Your task to perform on an android device: toggle airplane mode Image 0: 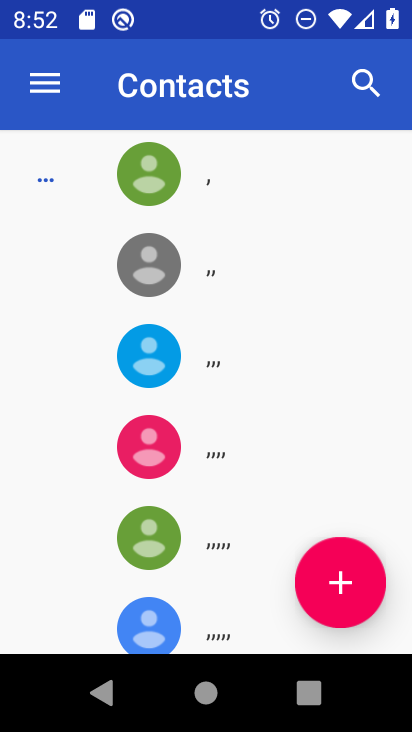
Step 0: press home button
Your task to perform on an android device: toggle airplane mode Image 1: 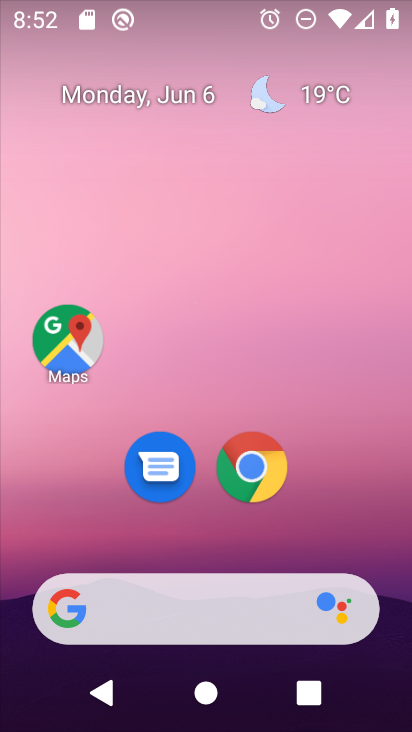
Step 1: drag from (362, 509) to (375, 102)
Your task to perform on an android device: toggle airplane mode Image 2: 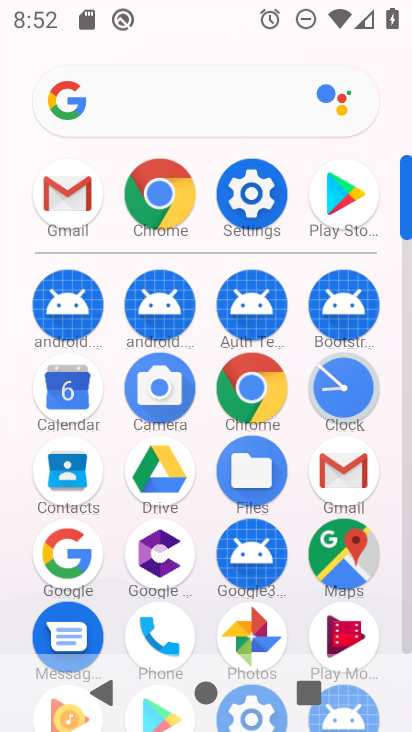
Step 2: click (259, 205)
Your task to perform on an android device: toggle airplane mode Image 3: 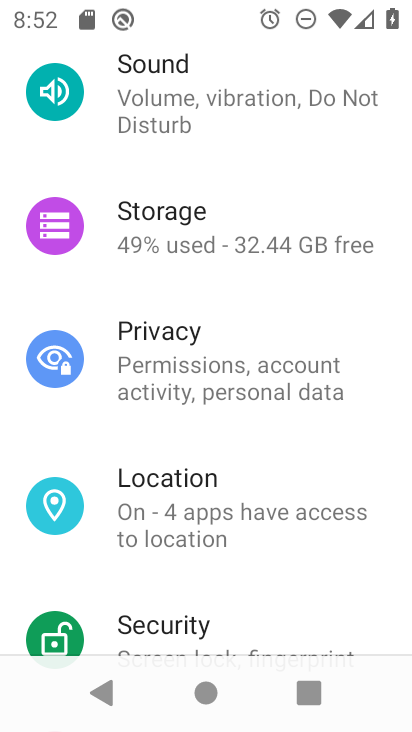
Step 3: drag from (353, 303) to (367, 432)
Your task to perform on an android device: toggle airplane mode Image 4: 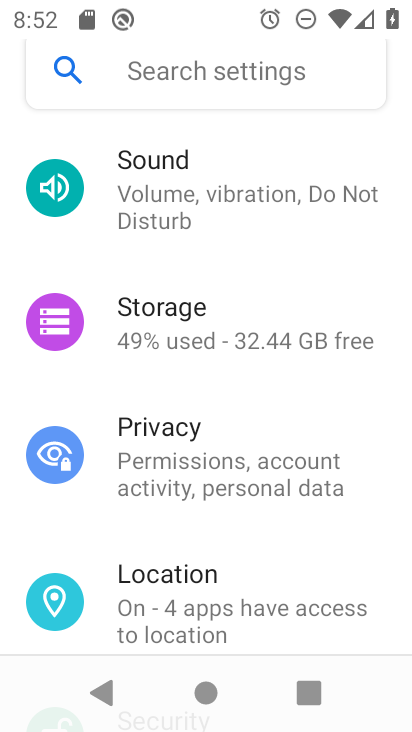
Step 4: drag from (365, 265) to (368, 388)
Your task to perform on an android device: toggle airplane mode Image 5: 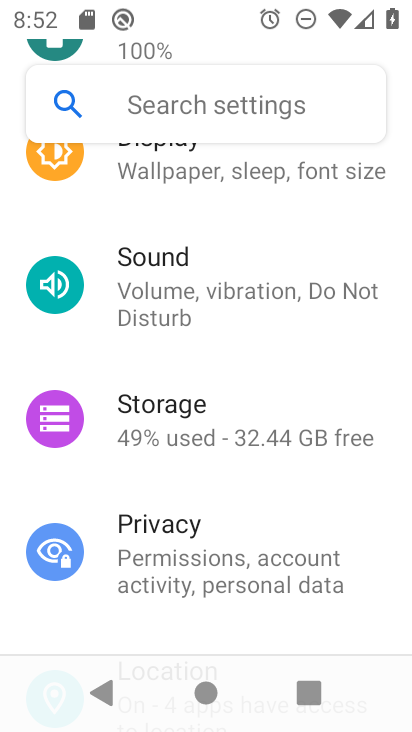
Step 5: drag from (374, 209) to (375, 334)
Your task to perform on an android device: toggle airplane mode Image 6: 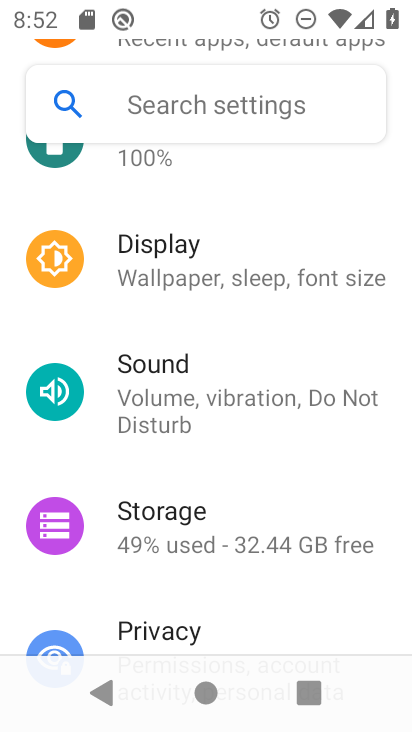
Step 6: drag from (373, 201) to (364, 346)
Your task to perform on an android device: toggle airplane mode Image 7: 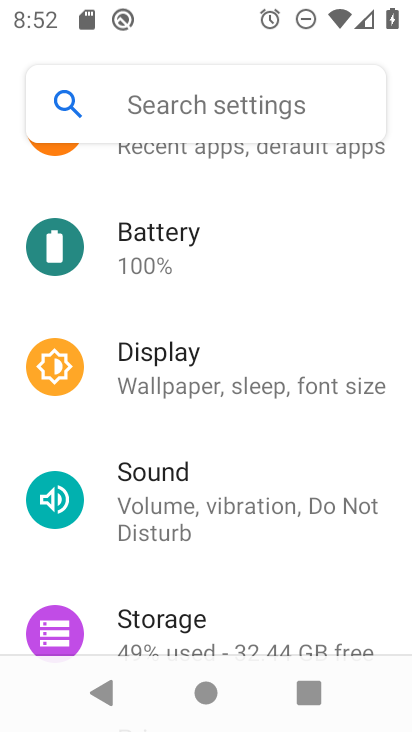
Step 7: drag from (364, 194) to (358, 327)
Your task to perform on an android device: toggle airplane mode Image 8: 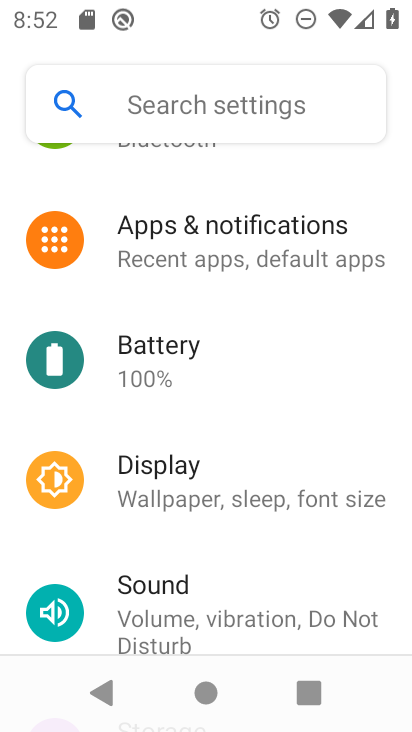
Step 8: drag from (369, 186) to (366, 319)
Your task to perform on an android device: toggle airplane mode Image 9: 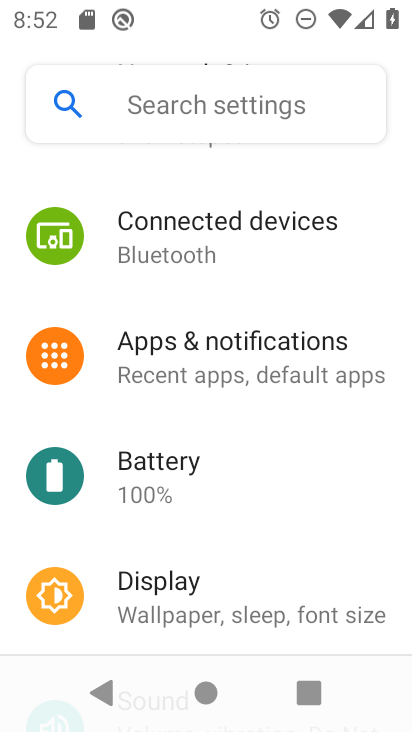
Step 9: drag from (357, 196) to (370, 367)
Your task to perform on an android device: toggle airplane mode Image 10: 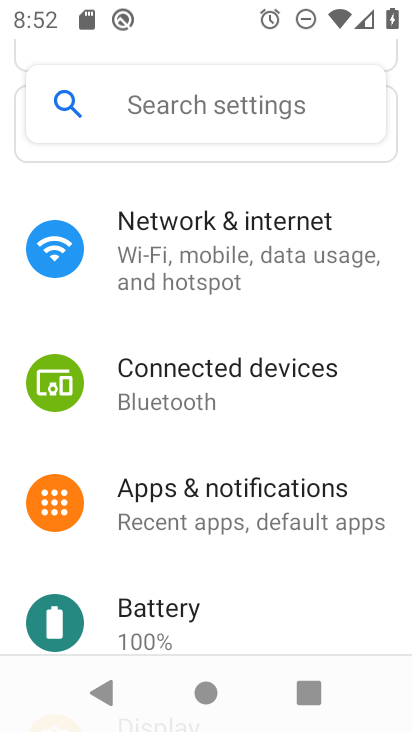
Step 10: click (235, 251)
Your task to perform on an android device: toggle airplane mode Image 11: 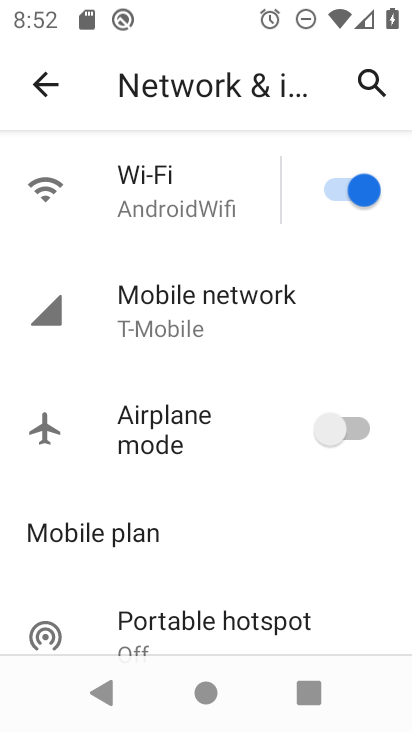
Step 11: click (329, 438)
Your task to perform on an android device: toggle airplane mode Image 12: 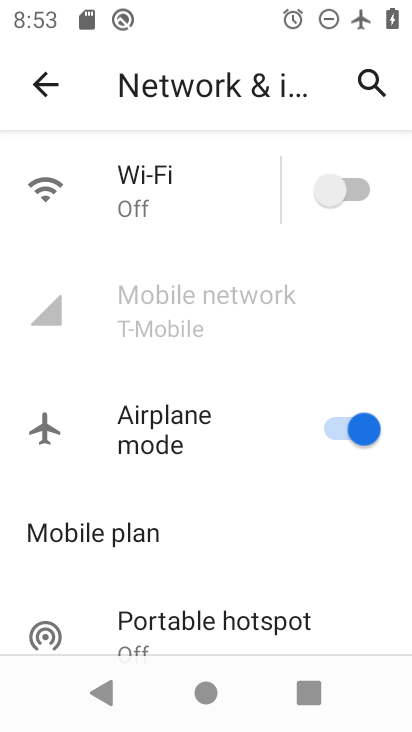
Step 12: task complete